Your task to perform on an android device: Open Reddit.com Image 0: 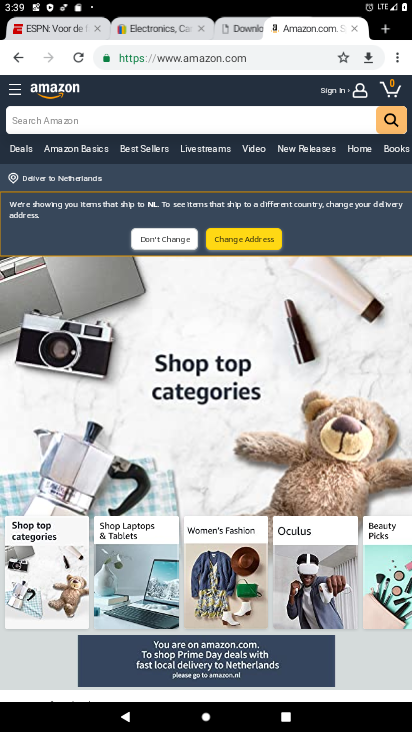
Step 0: press home button
Your task to perform on an android device: Open Reddit.com Image 1: 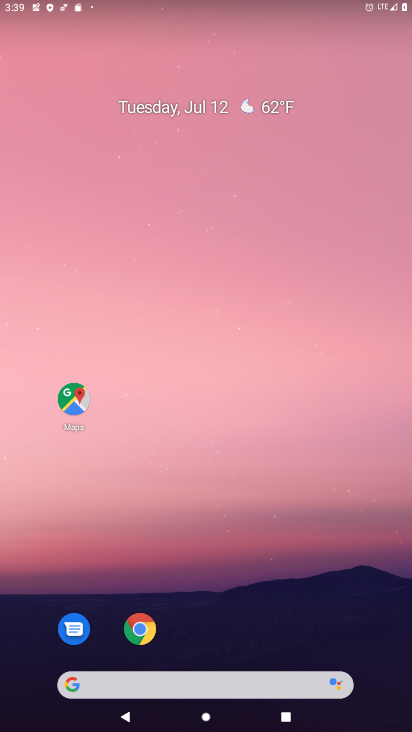
Step 1: click (154, 638)
Your task to perform on an android device: Open Reddit.com Image 2: 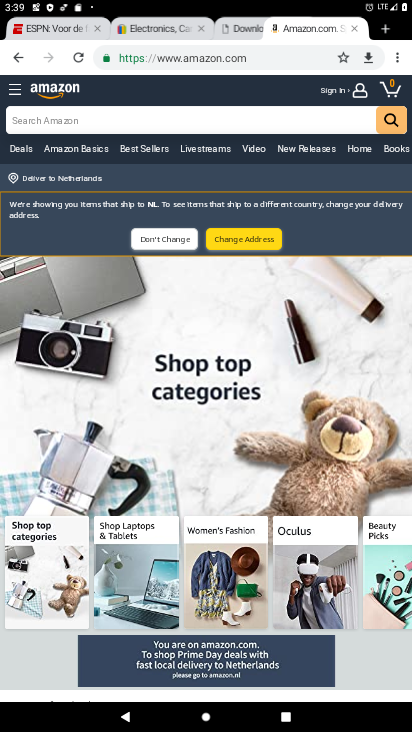
Step 2: click (389, 25)
Your task to perform on an android device: Open Reddit.com Image 3: 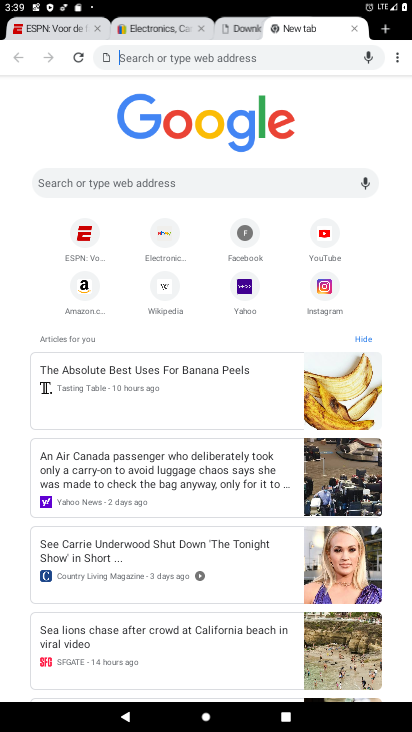
Step 3: click (168, 185)
Your task to perform on an android device: Open Reddit.com Image 4: 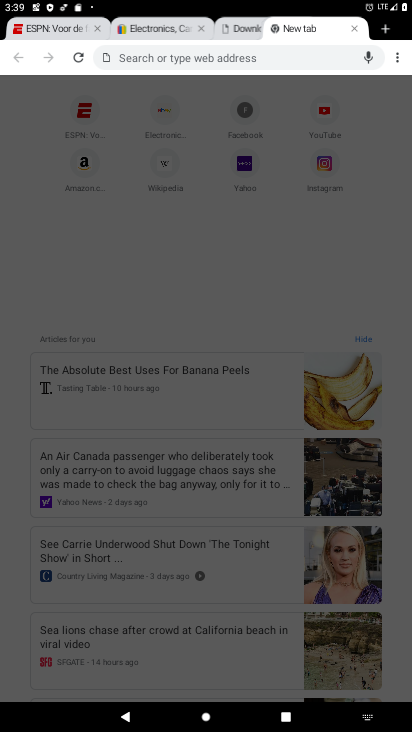
Step 4: type "reddit"
Your task to perform on an android device: Open Reddit.com Image 5: 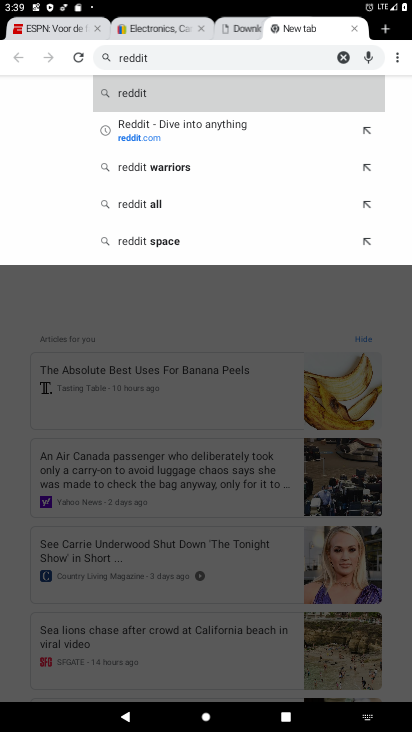
Step 5: type "h"
Your task to perform on an android device: Open Reddit.com Image 6: 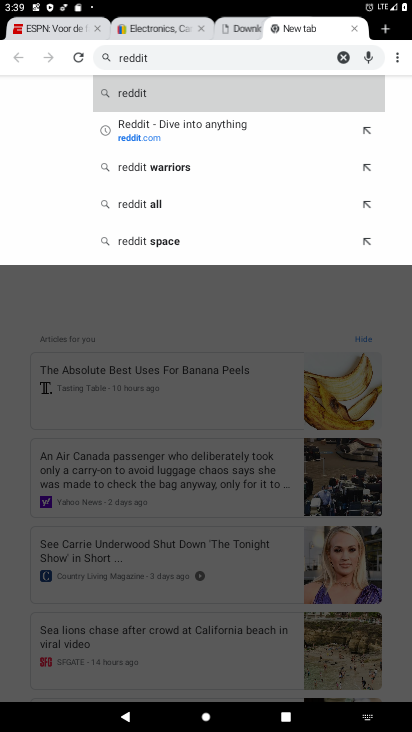
Step 6: click (163, 109)
Your task to perform on an android device: Open Reddit.com Image 7: 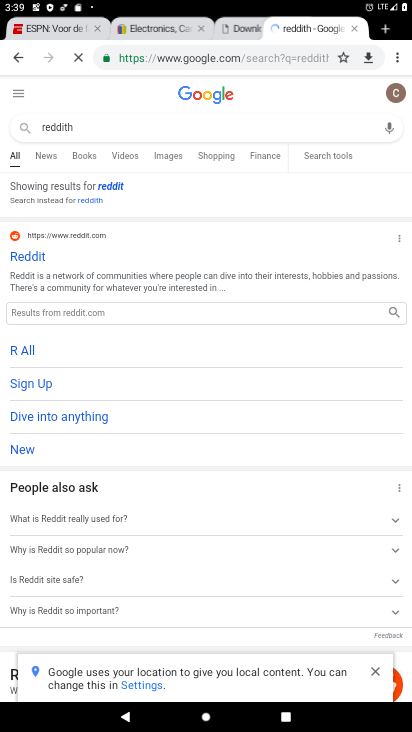
Step 7: click (29, 254)
Your task to perform on an android device: Open Reddit.com Image 8: 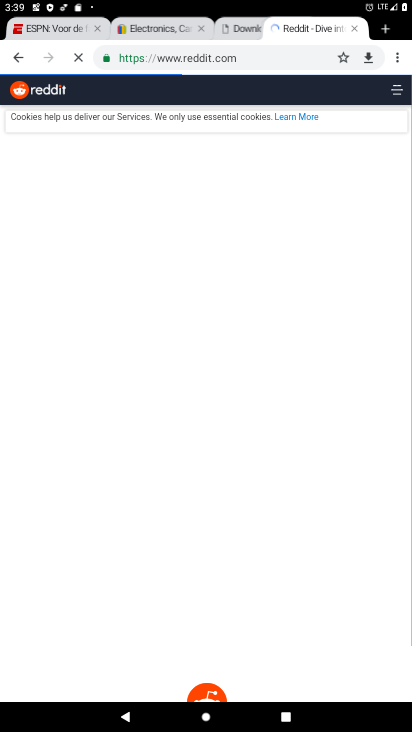
Step 8: task complete